Your task to perform on an android device: move an email to a new category in the gmail app Image 0: 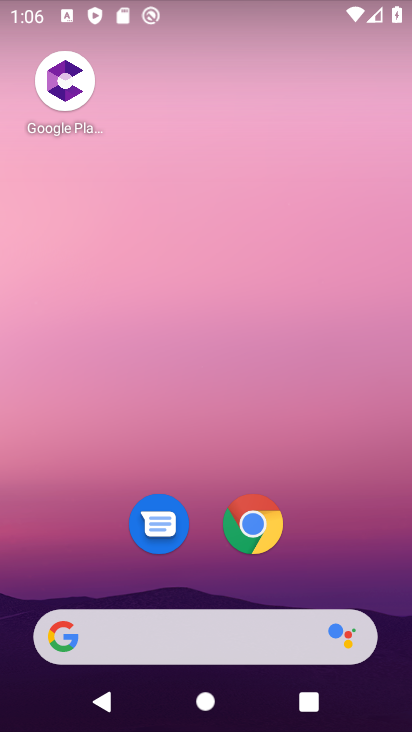
Step 0: drag from (212, 453) to (201, 13)
Your task to perform on an android device: move an email to a new category in the gmail app Image 1: 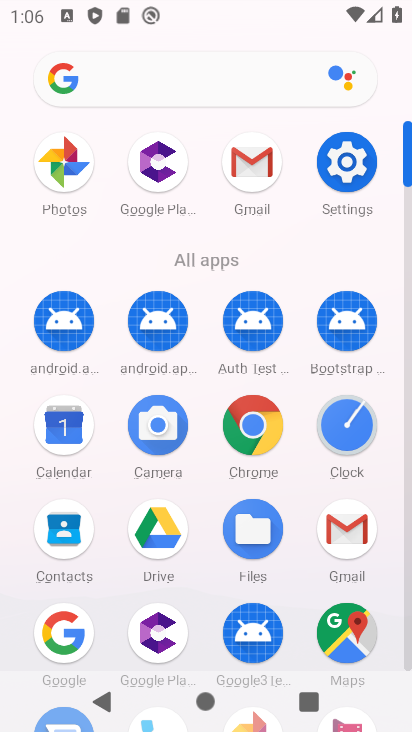
Step 1: click (251, 169)
Your task to perform on an android device: move an email to a new category in the gmail app Image 2: 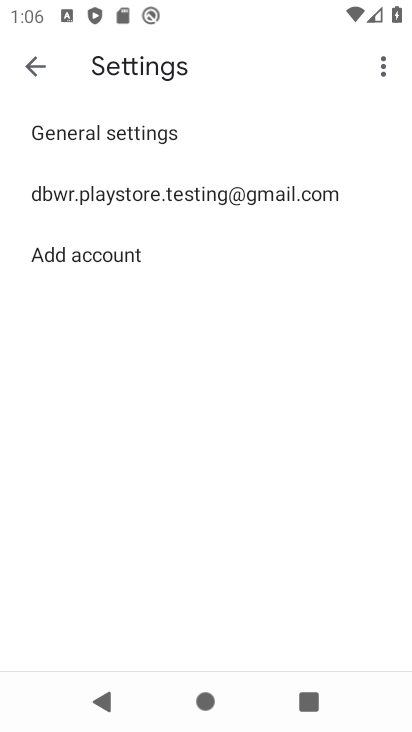
Step 2: click (35, 64)
Your task to perform on an android device: move an email to a new category in the gmail app Image 3: 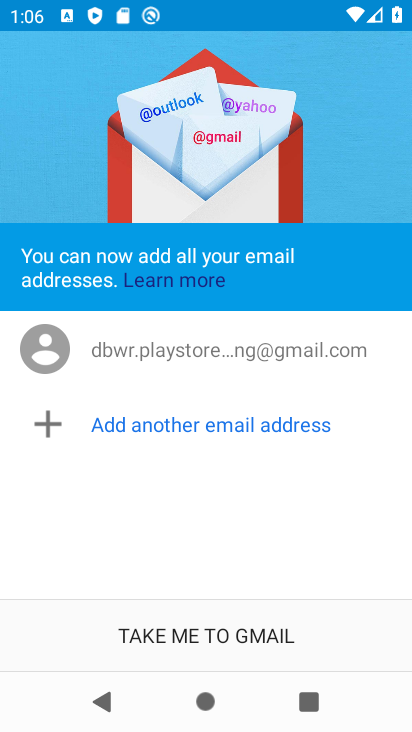
Step 3: click (281, 632)
Your task to perform on an android device: move an email to a new category in the gmail app Image 4: 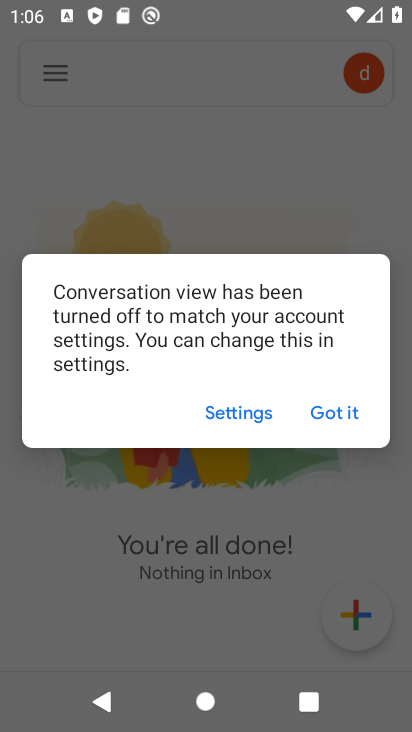
Step 4: click (342, 405)
Your task to perform on an android device: move an email to a new category in the gmail app Image 5: 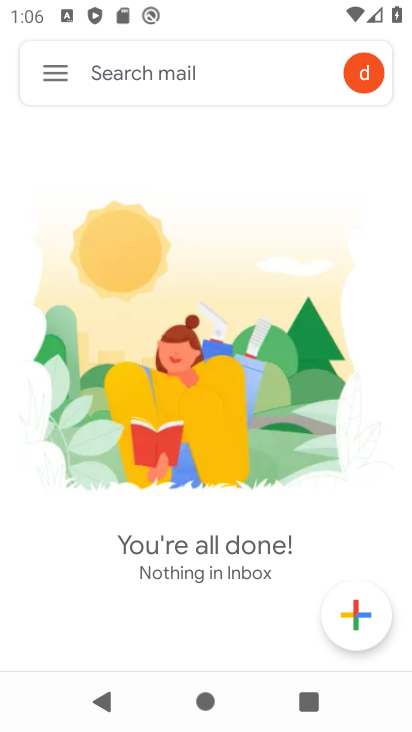
Step 5: click (59, 74)
Your task to perform on an android device: move an email to a new category in the gmail app Image 6: 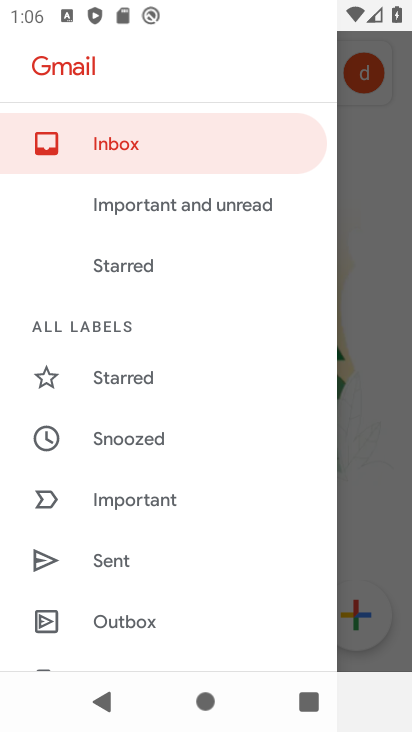
Step 6: drag from (185, 559) to (192, 264)
Your task to perform on an android device: move an email to a new category in the gmail app Image 7: 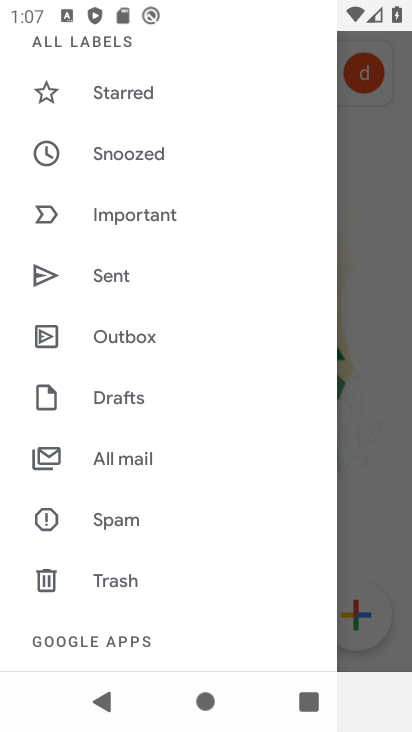
Step 7: click (151, 452)
Your task to perform on an android device: move an email to a new category in the gmail app Image 8: 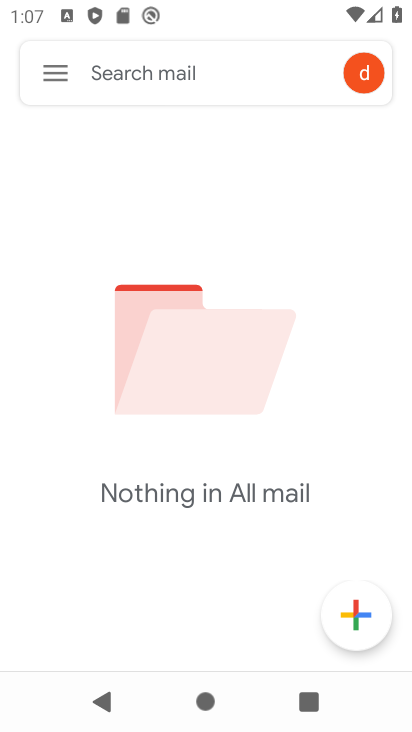
Step 8: task complete